Your task to perform on an android device: add a contact Image 0: 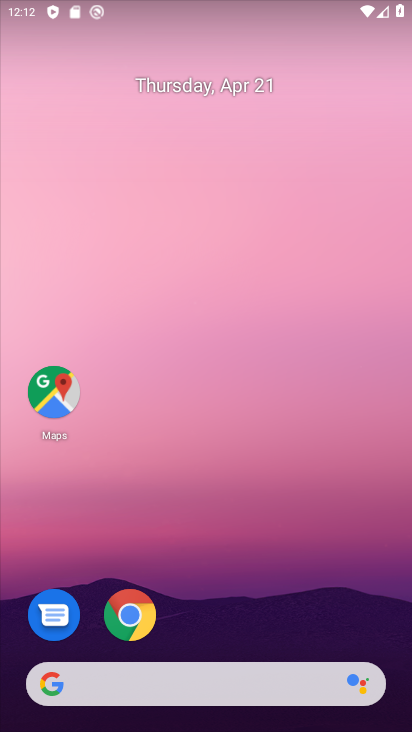
Step 0: drag from (221, 409) to (273, 150)
Your task to perform on an android device: add a contact Image 1: 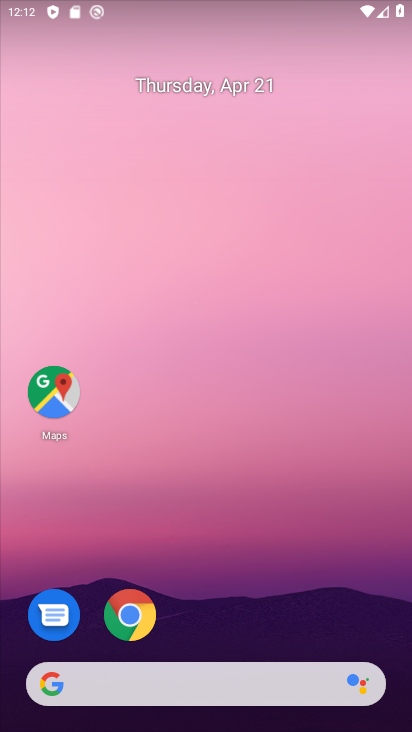
Step 1: drag from (201, 537) to (239, 95)
Your task to perform on an android device: add a contact Image 2: 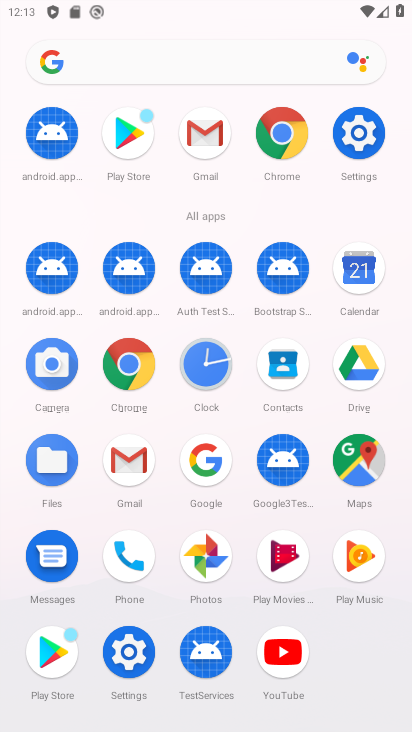
Step 2: click (287, 374)
Your task to perform on an android device: add a contact Image 3: 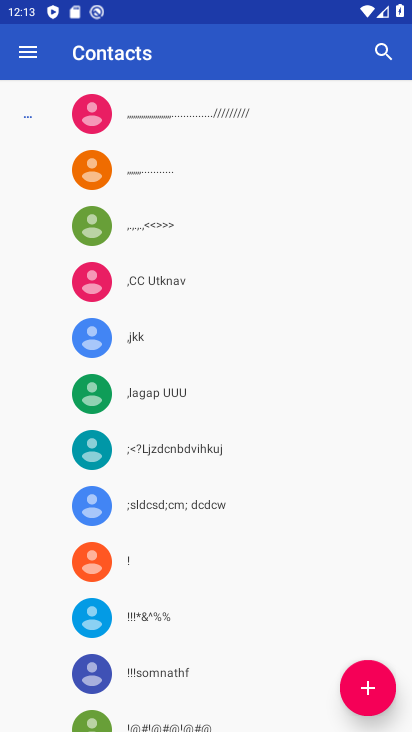
Step 3: click (372, 692)
Your task to perform on an android device: add a contact Image 4: 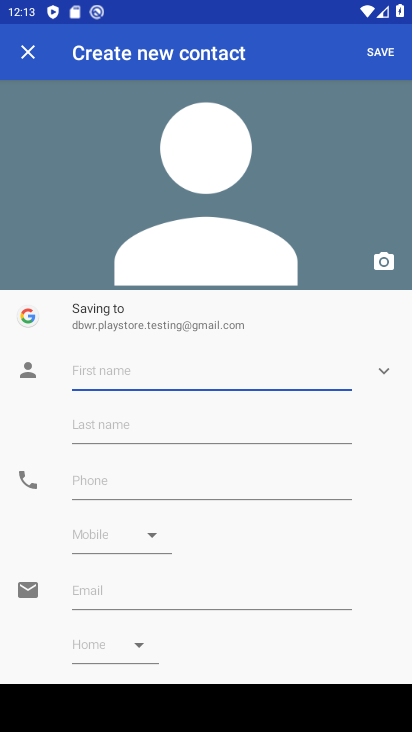
Step 4: type "manisssaaa"
Your task to perform on an android device: add a contact Image 5: 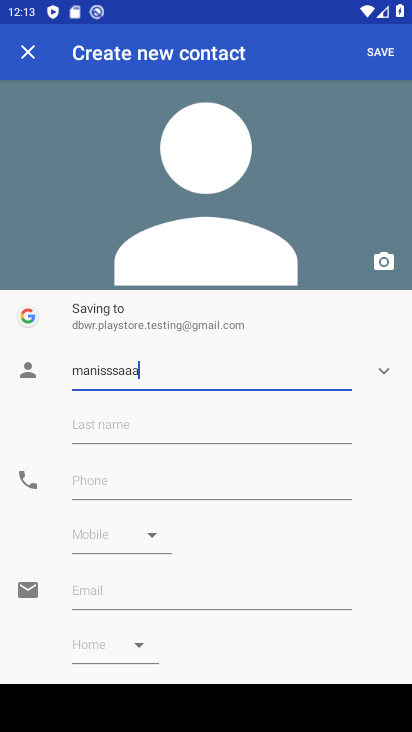
Step 5: click (147, 474)
Your task to perform on an android device: add a contact Image 6: 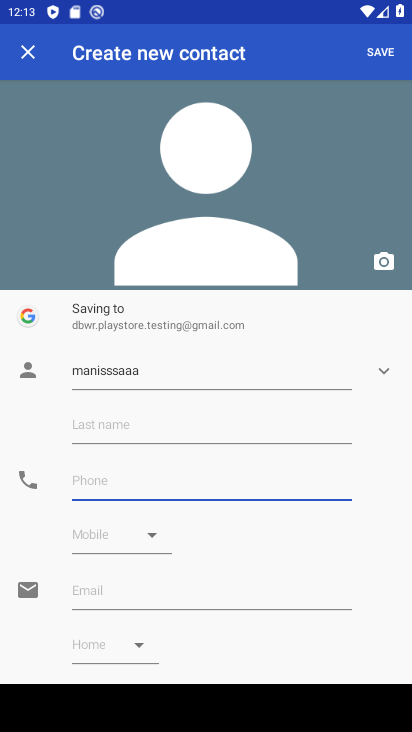
Step 6: type "9879879798"
Your task to perform on an android device: add a contact Image 7: 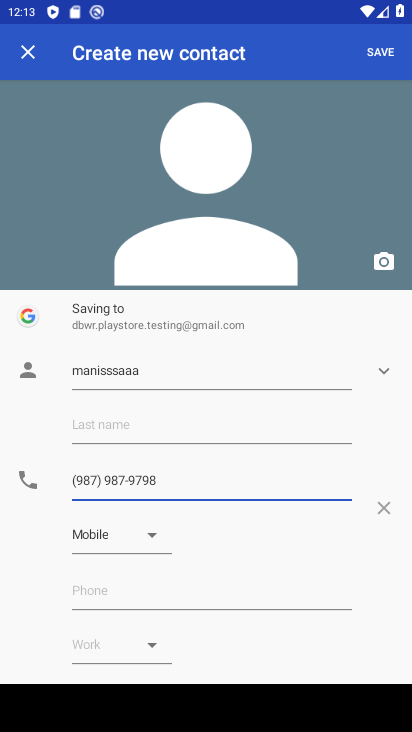
Step 7: click (385, 54)
Your task to perform on an android device: add a contact Image 8: 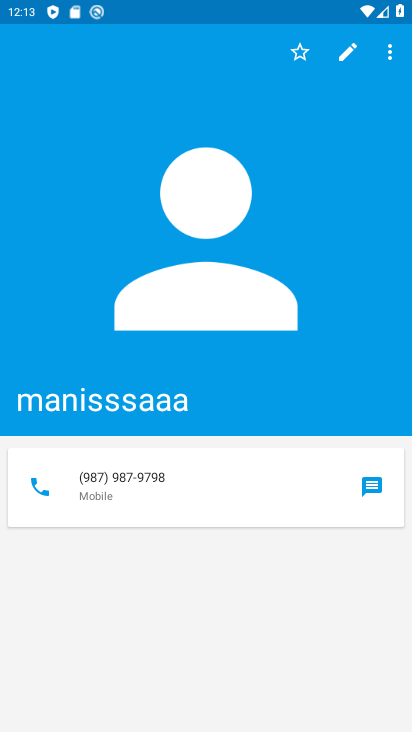
Step 8: task complete